Your task to perform on an android device: change timer sound Image 0: 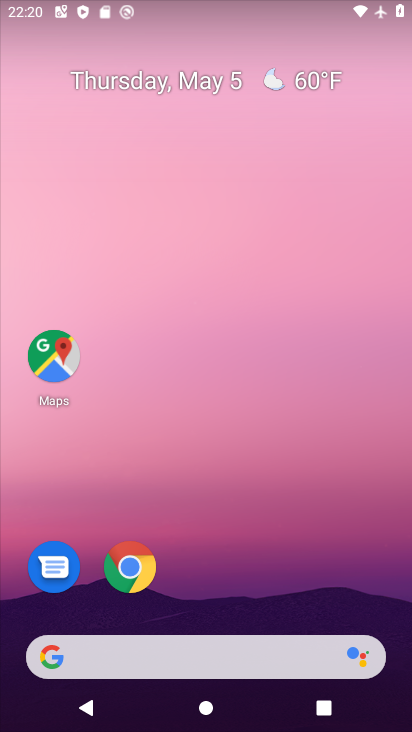
Step 0: drag from (184, 580) to (179, 169)
Your task to perform on an android device: change timer sound Image 1: 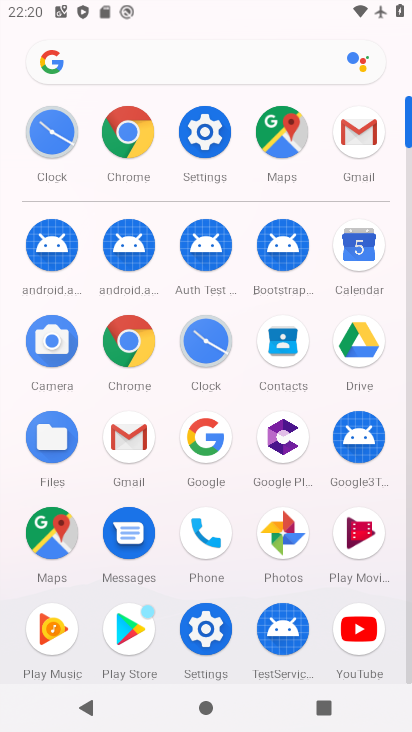
Step 1: click (183, 137)
Your task to perform on an android device: change timer sound Image 2: 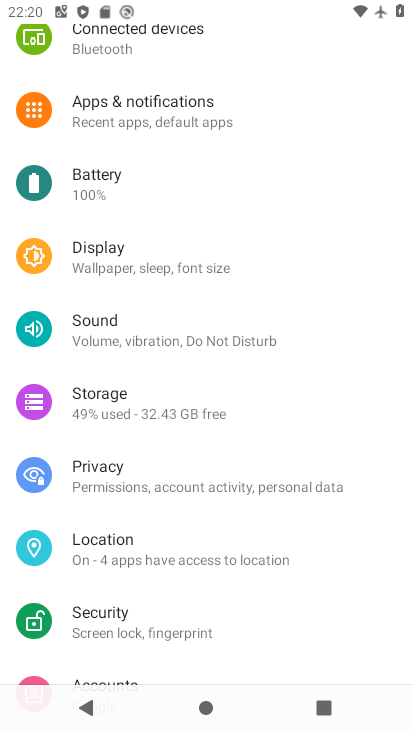
Step 2: click (91, 710)
Your task to perform on an android device: change timer sound Image 3: 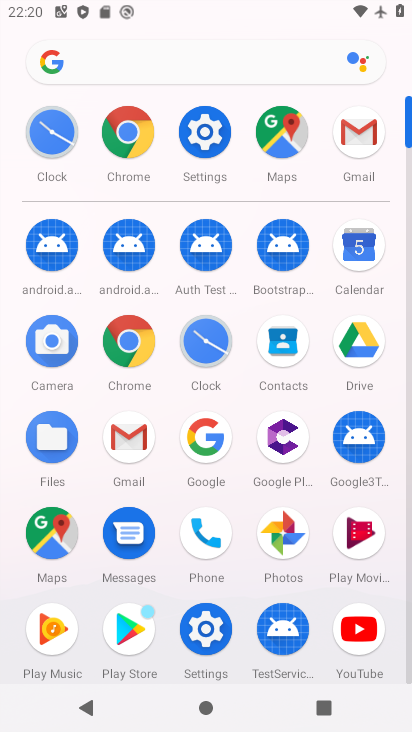
Step 3: click (198, 340)
Your task to perform on an android device: change timer sound Image 4: 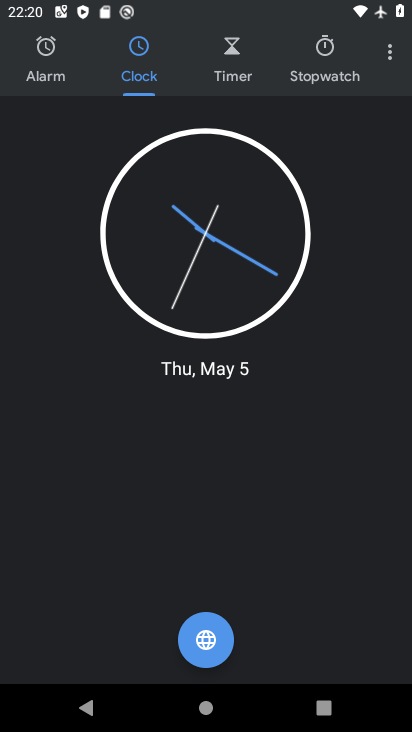
Step 4: click (390, 50)
Your task to perform on an android device: change timer sound Image 5: 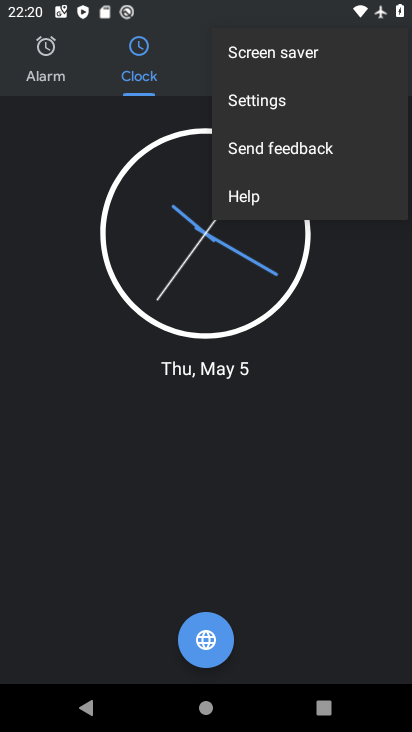
Step 5: click (290, 100)
Your task to perform on an android device: change timer sound Image 6: 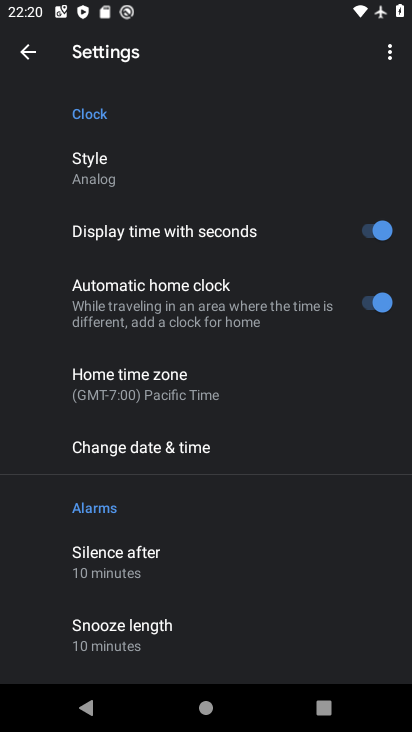
Step 6: drag from (195, 599) to (200, 243)
Your task to perform on an android device: change timer sound Image 7: 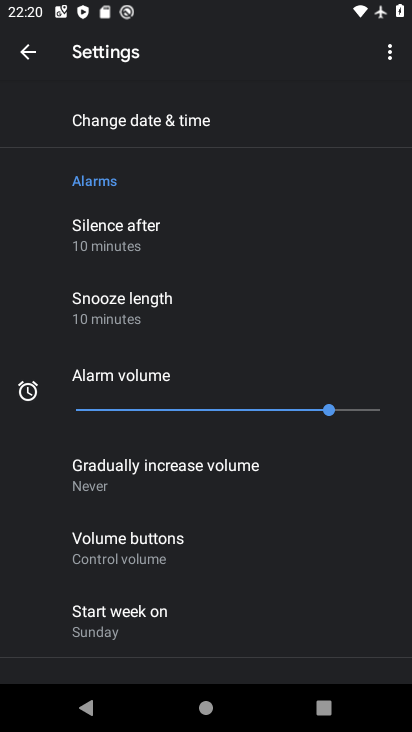
Step 7: drag from (216, 510) to (232, 238)
Your task to perform on an android device: change timer sound Image 8: 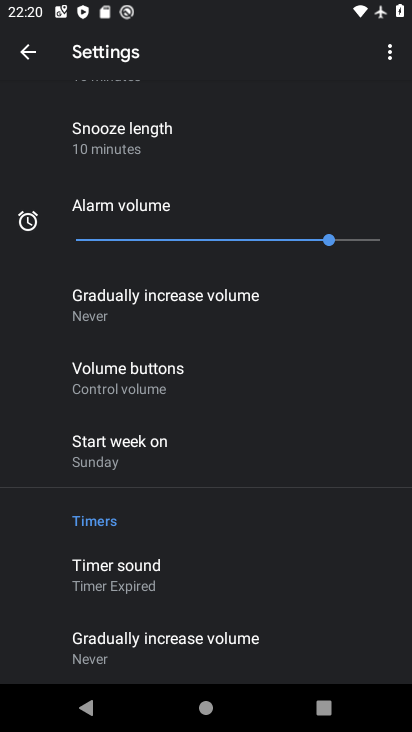
Step 8: click (179, 580)
Your task to perform on an android device: change timer sound Image 9: 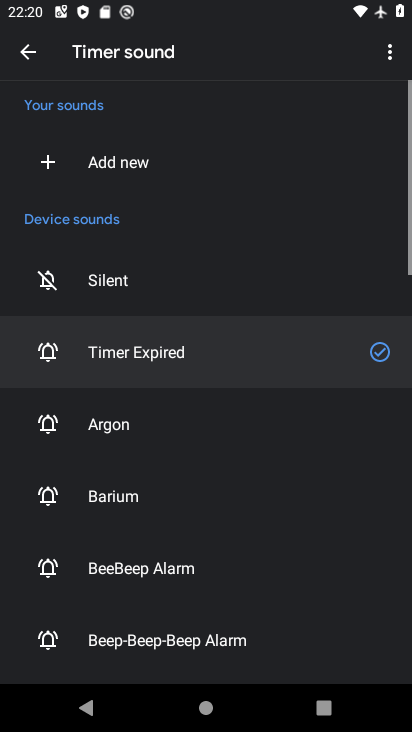
Step 9: click (156, 418)
Your task to perform on an android device: change timer sound Image 10: 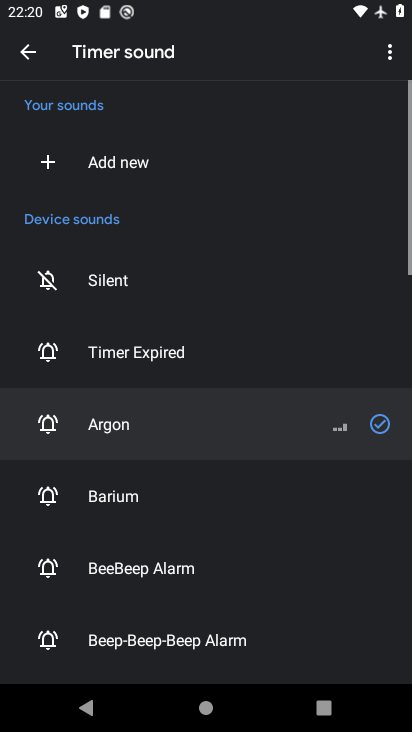
Step 10: task complete